Your task to perform on an android device: Open settings Image 0: 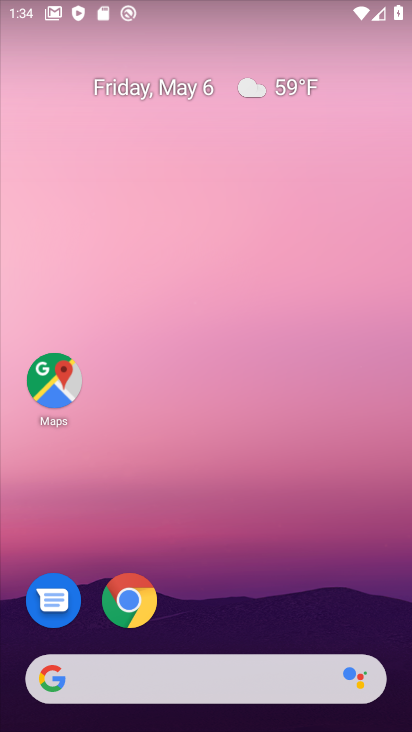
Step 0: drag from (278, 537) to (287, 52)
Your task to perform on an android device: Open settings Image 1: 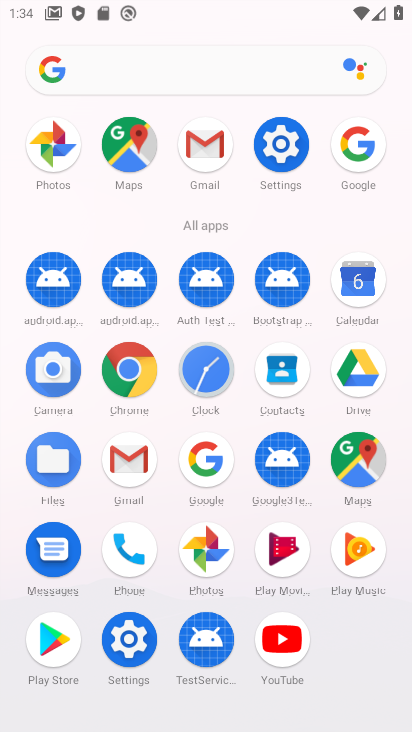
Step 1: click (285, 146)
Your task to perform on an android device: Open settings Image 2: 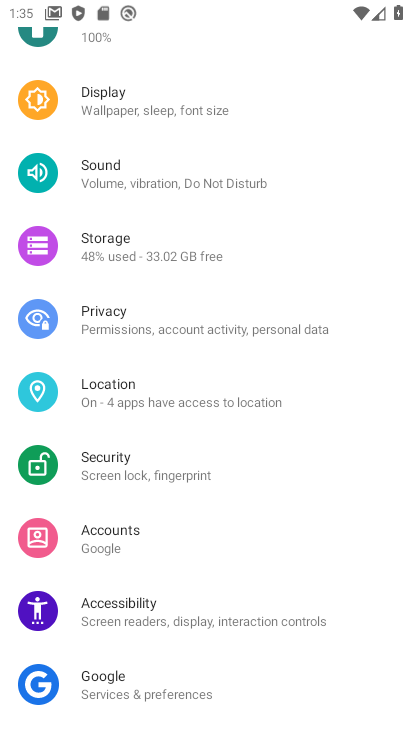
Step 2: task complete